Your task to perform on an android device: open app "Facebook Messenger" (install if not already installed) Image 0: 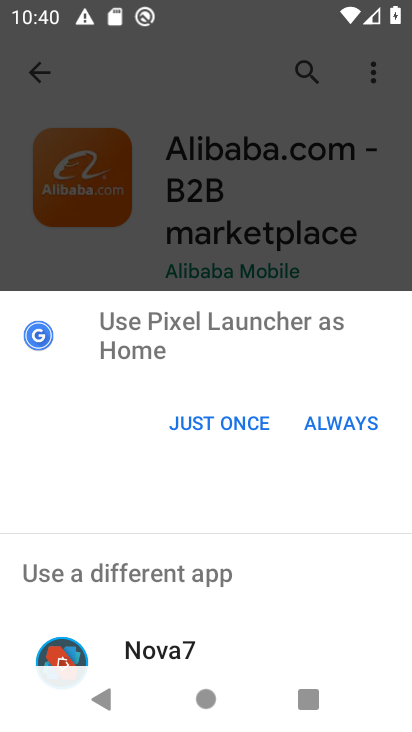
Step 0: click (204, 425)
Your task to perform on an android device: open app "Facebook Messenger" (install if not already installed) Image 1: 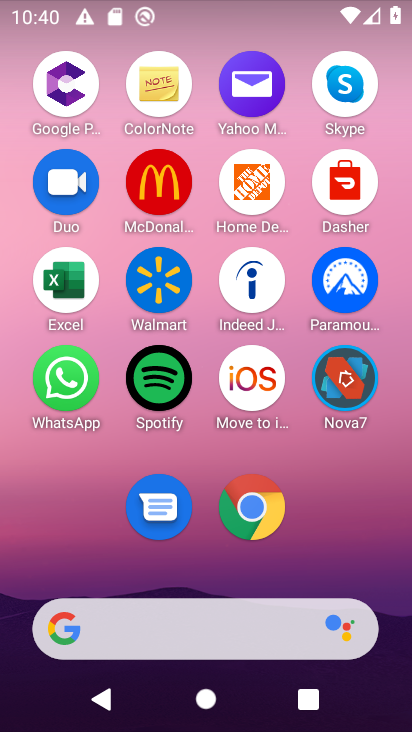
Step 1: drag from (401, 623) to (378, 210)
Your task to perform on an android device: open app "Facebook Messenger" (install if not already installed) Image 2: 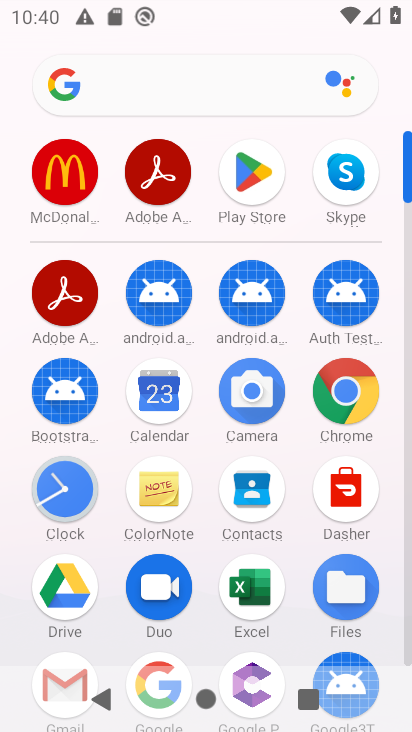
Step 2: click (405, 647)
Your task to perform on an android device: open app "Facebook Messenger" (install if not already installed) Image 3: 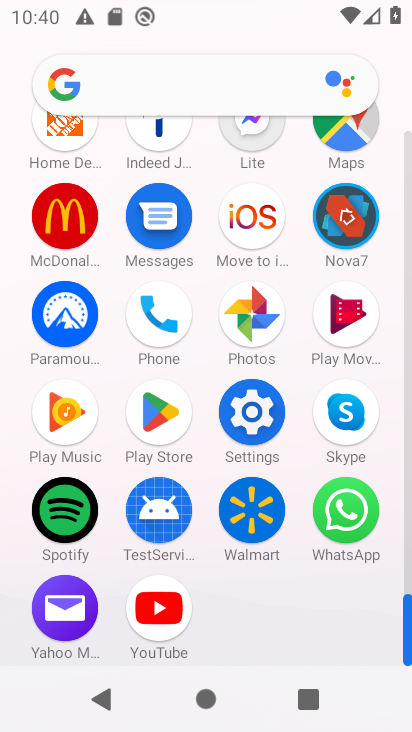
Step 3: click (159, 411)
Your task to perform on an android device: open app "Facebook Messenger" (install if not already installed) Image 4: 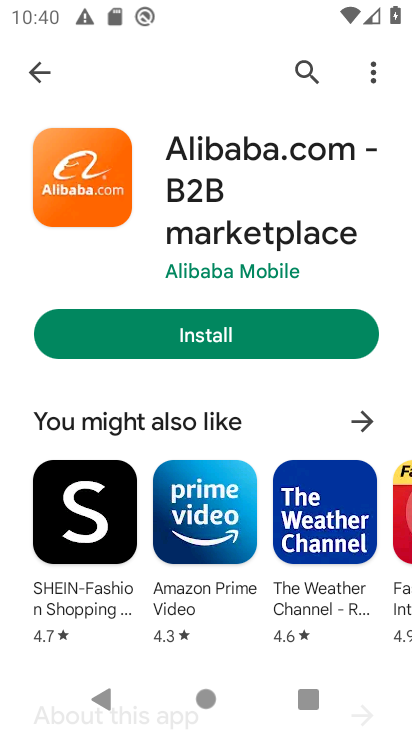
Step 4: click (307, 69)
Your task to perform on an android device: open app "Facebook Messenger" (install if not already installed) Image 5: 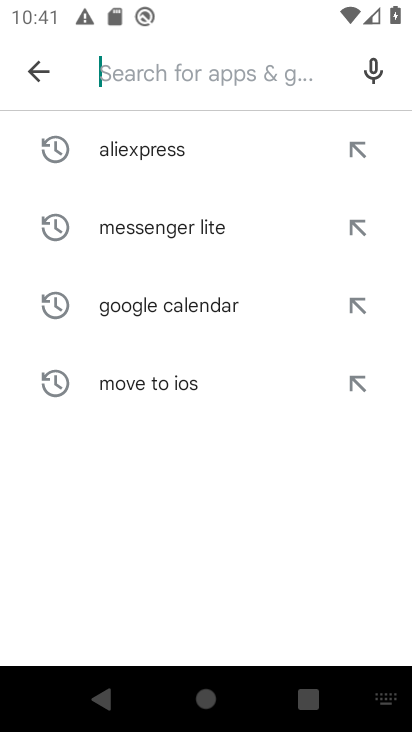
Step 5: type "Facebook Messenge"
Your task to perform on an android device: open app "Facebook Messenger" (install if not already installed) Image 6: 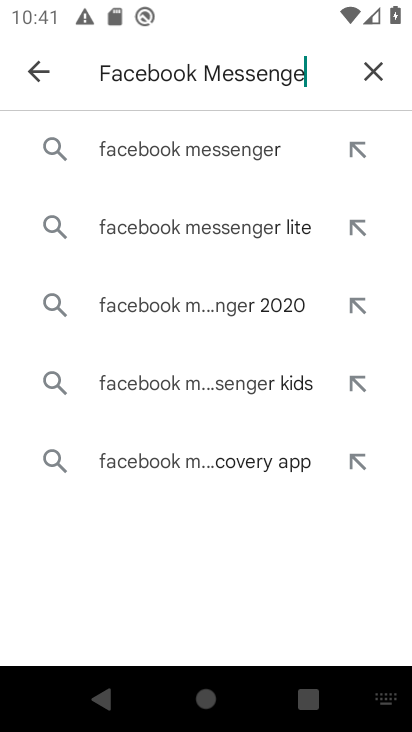
Step 6: click (167, 145)
Your task to perform on an android device: open app "Facebook Messenger" (install if not already installed) Image 7: 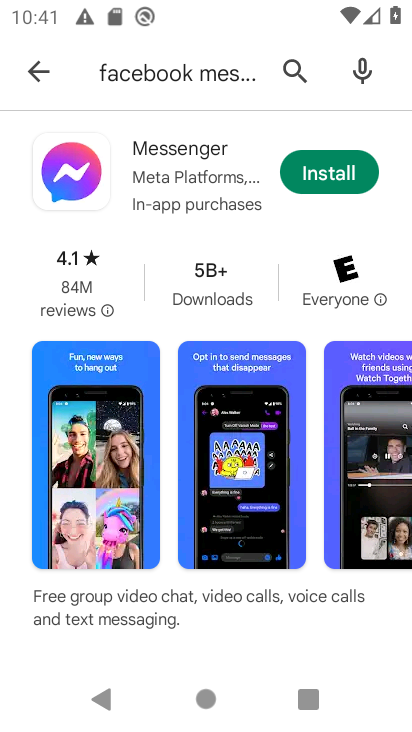
Step 7: click (159, 161)
Your task to perform on an android device: open app "Facebook Messenger" (install if not already installed) Image 8: 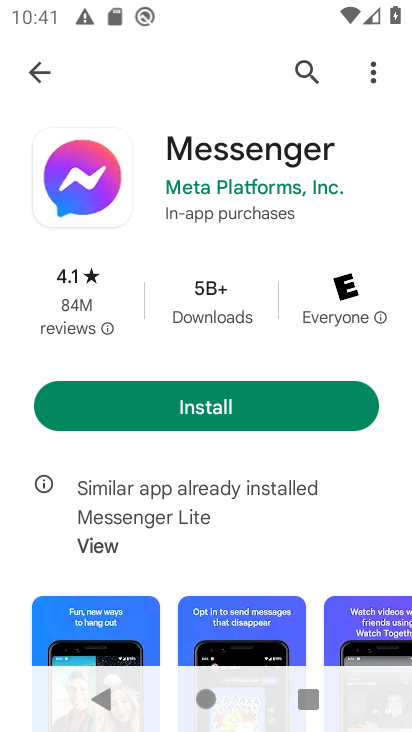
Step 8: click (207, 406)
Your task to perform on an android device: open app "Facebook Messenger" (install if not already installed) Image 9: 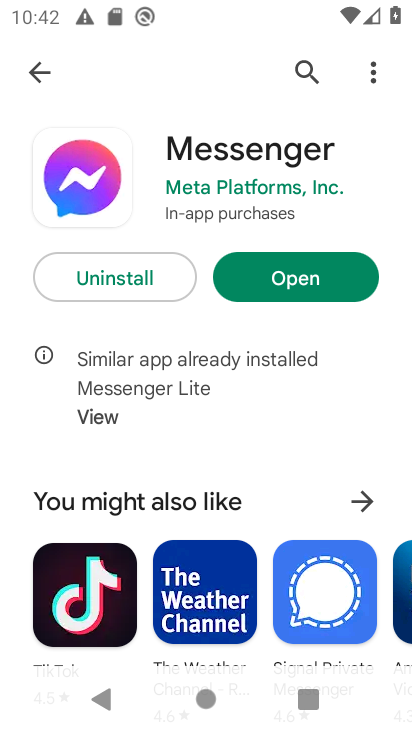
Step 9: click (293, 276)
Your task to perform on an android device: open app "Facebook Messenger" (install if not already installed) Image 10: 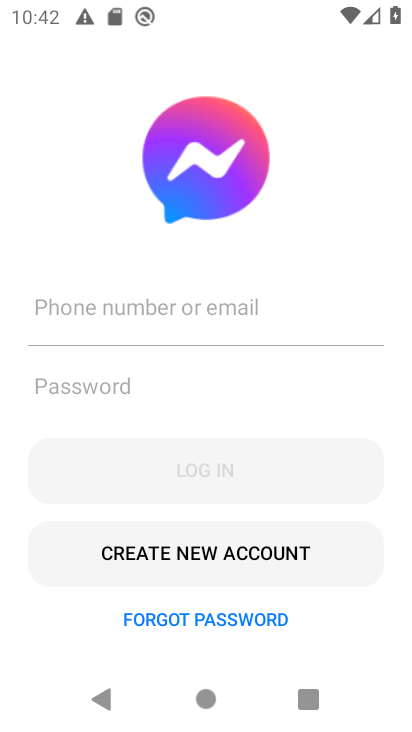
Step 10: task complete